Your task to perform on an android device: turn off improve location accuracy Image 0: 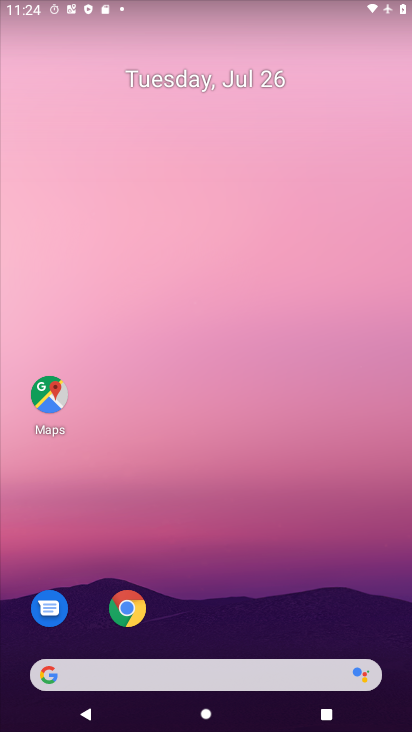
Step 0: drag from (227, 603) to (240, 44)
Your task to perform on an android device: turn off improve location accuracy Image 1: 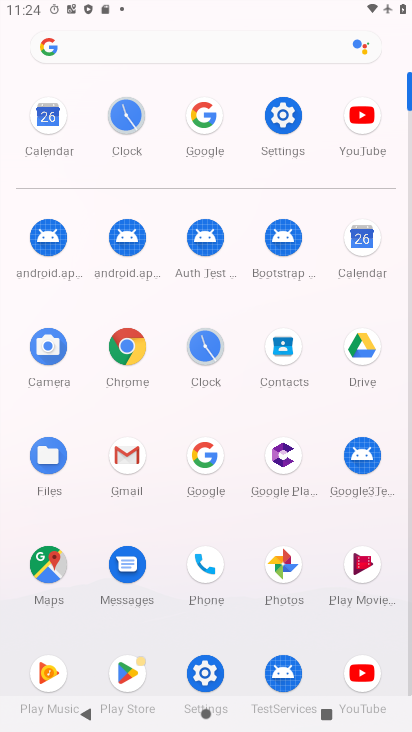
Step 1: click (289, 128)
Your task to perform on an android device: turn off improve location accuracy Image 2: 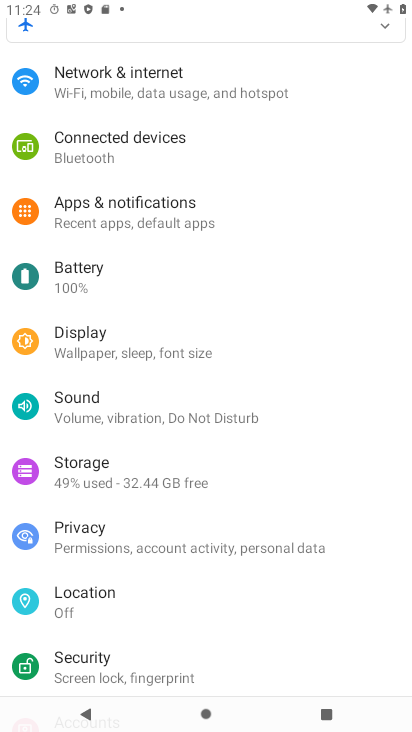
Step 2: click (136, 606)
Your task to perform on an android device: turn off improve location accuracy Image 3: 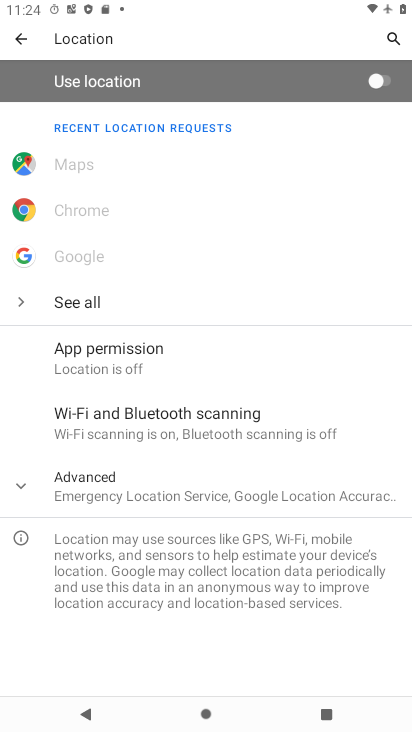
Step 3: click (148, 483)
Your task to perform on an android device: turn off improve location accuracy Image 4: 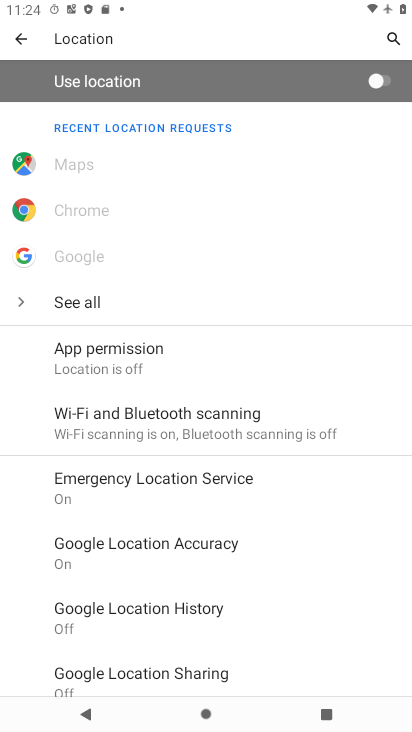
Step 4: click (216, 564)
Your task to perform on an android device: turn off improve location accuracy Image 5: 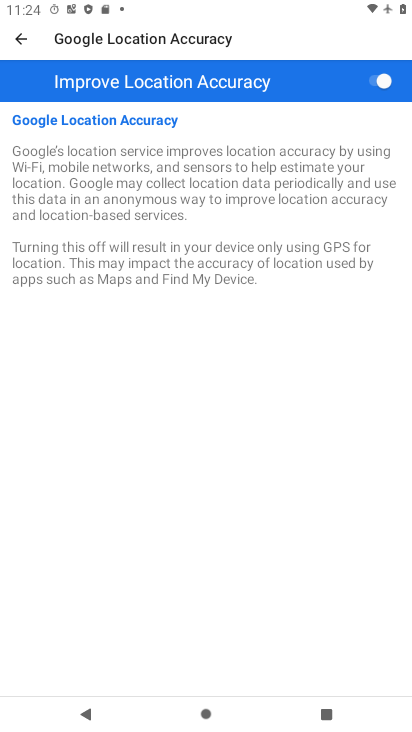
Step 5: click (362, 88)
Your task to perform on an android device: turn off improve location accuracy Image 6: 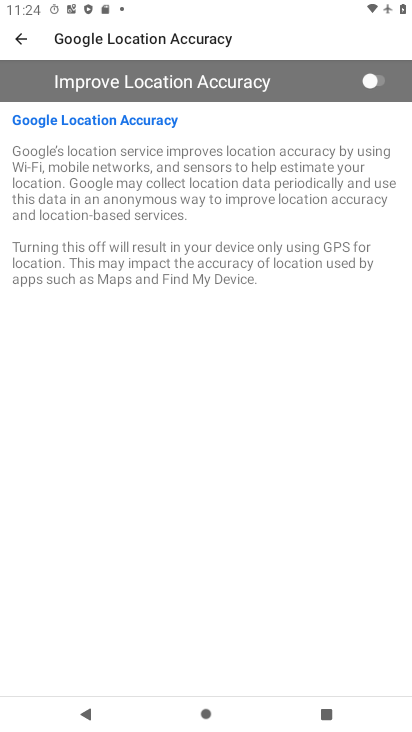
Step 6: task complete